Your task to perform on an android device: Is it going to rain tomorrow? Image 0: 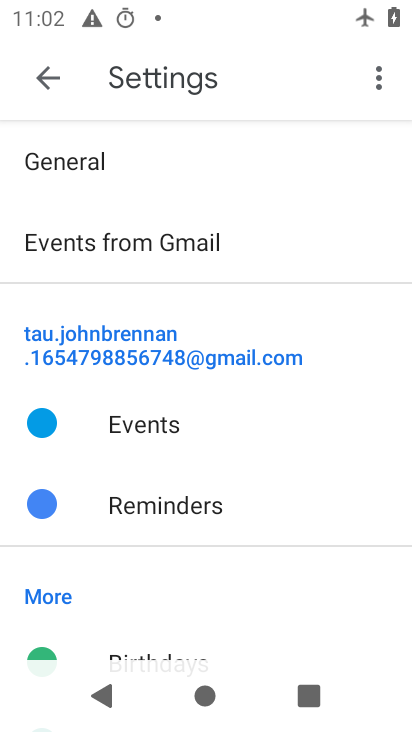
Step 0: press back button
Your task to perform on an android device: Is it going to rain tomorrow? Image 1: 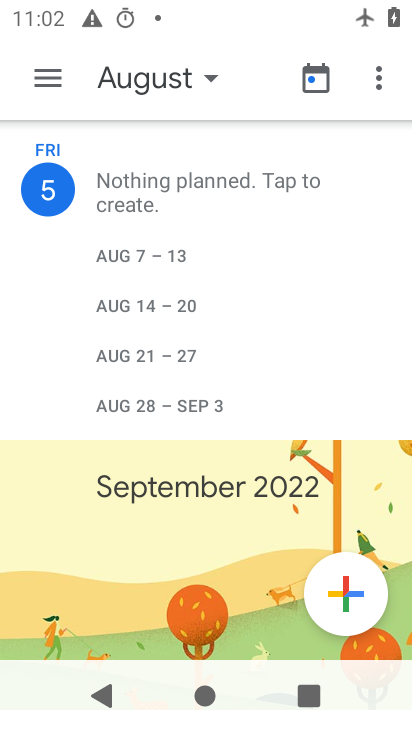
Step 1: press home button
Your task to perform on an android device: Is it going to rain tomorrow? Image 2: 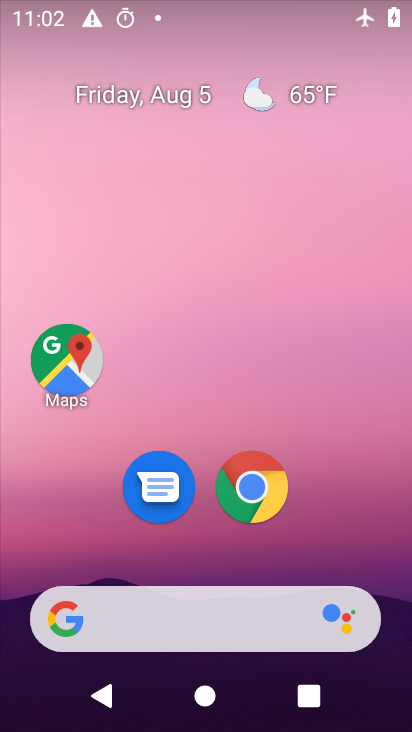
Step 2: drag from (137, 593) to (244, 0)
Your task to perform on an android device: Is it going to rain tomorrow? Image 3: 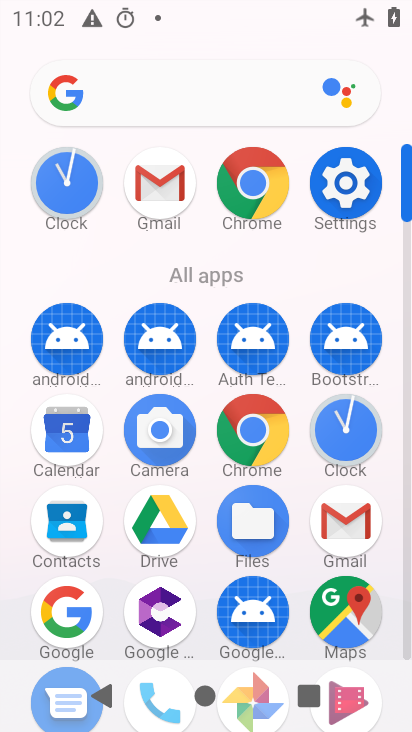
Step 3: click (175, 91)
Your task to perform on an android device: Is it going to rain tomorrow? Image 4: 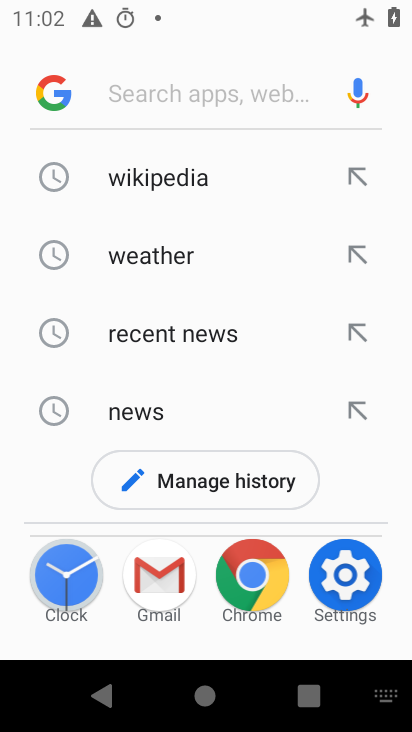
Step 4: click (134, 250)
Your task to perform on an android device: Is it going to rain tomorrow? Image 5: 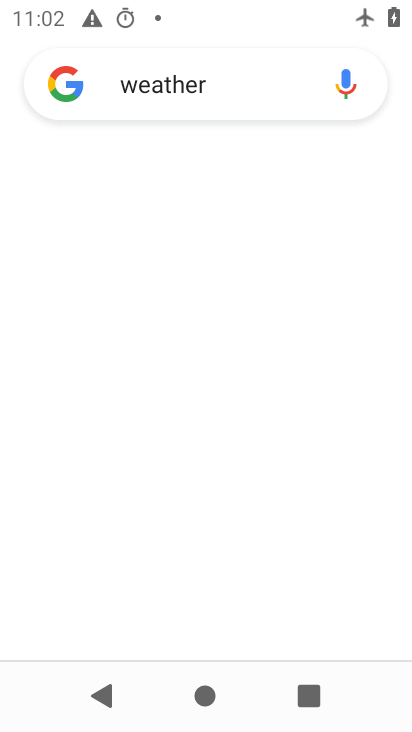
Step 5: drag from (335, 10) to (325, 562)
Your task to perform on an android device: Is it going to rain tomorrow? Image 6: 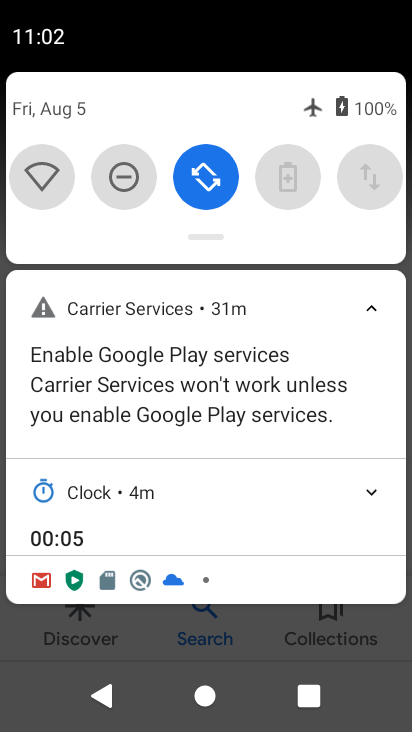
Step 6: drag from (243, 243) to (236, 730)
Your task to perform on an android device: Is it going to rain tomorrow? Image 7: 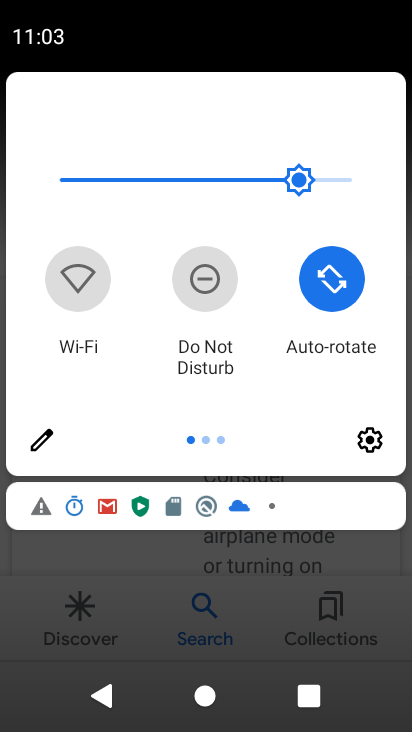
Step 7: drag from (353, 304) to (41, 266)
Your task to perform on an android device: Is it going to rain tomorrow? Image 8: 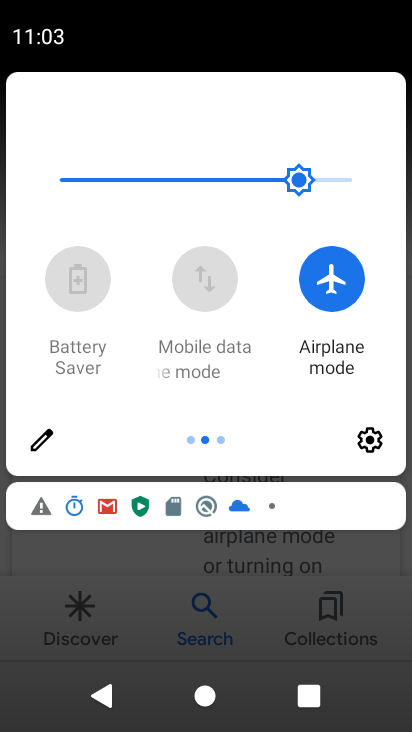
Step 8: click (322, 288)
Your task to perform on an android device: Is it going to rain tomorrow? Image 9: 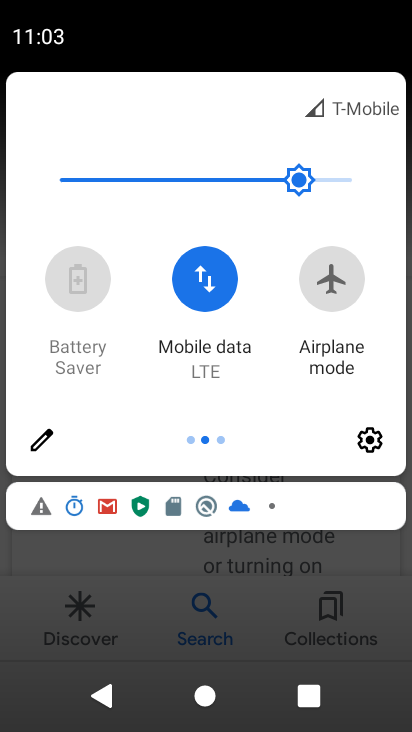
Step 9: click (117, 558)
Your task to perform on an android device: Is it going to rain tomorrow? Image 10: 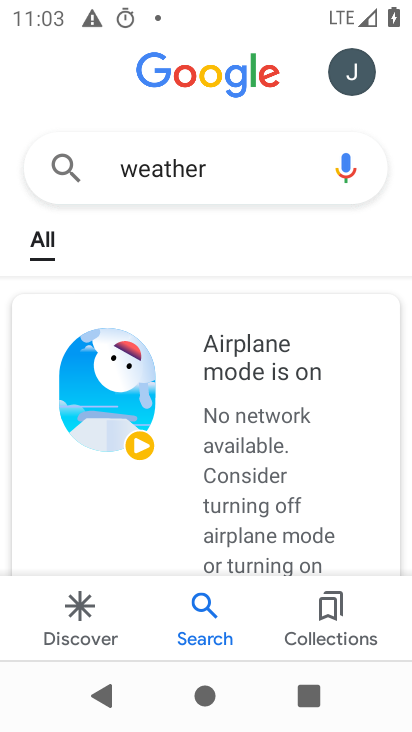
Step 10: drag from (210, 547) to (279, 140)
Your task to perform on an android device: Is it going to rain tomorrow? Image 11: 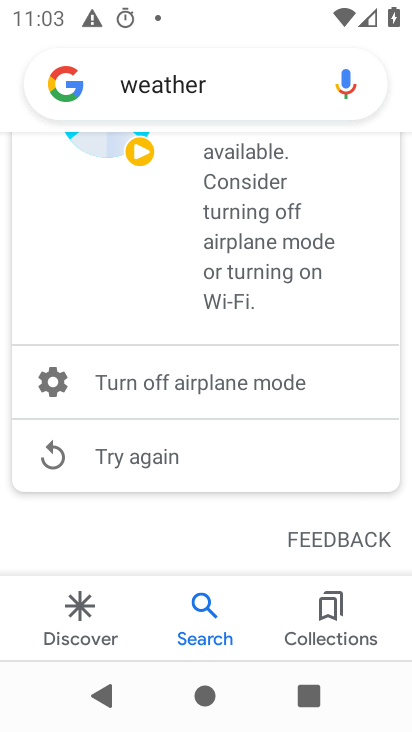
Step 11: click (145, 457)
Your task to perform on an android device: Is it going to rain tomorrow? Image 12: 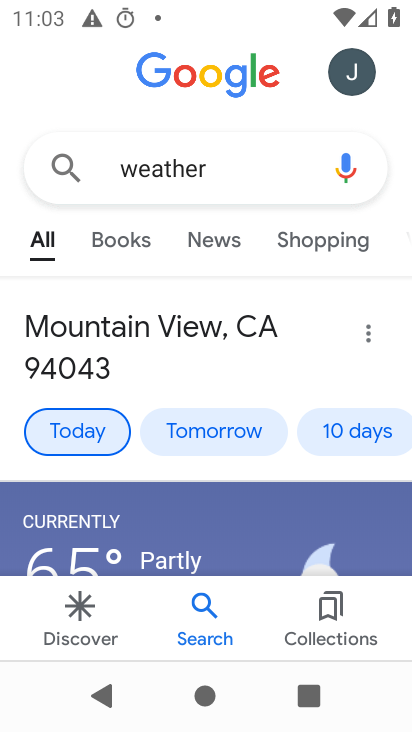
Step 12: click (206, 435)
Your task to perform on an android device: Is it going to rain tomorrow? Image 13: 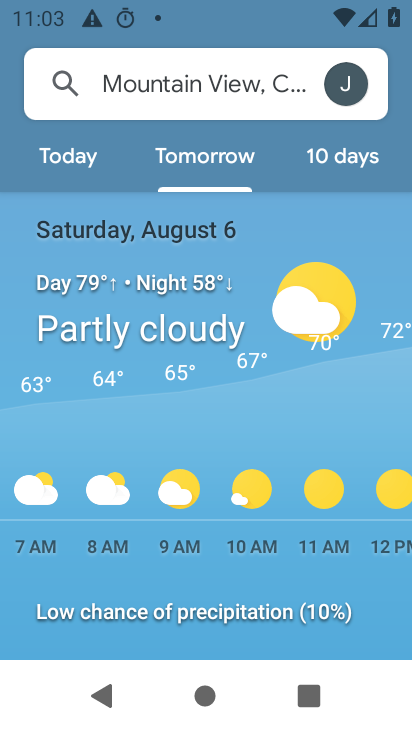
Step 13: task complete